Your task to perform on an android device: check storage Image 0: 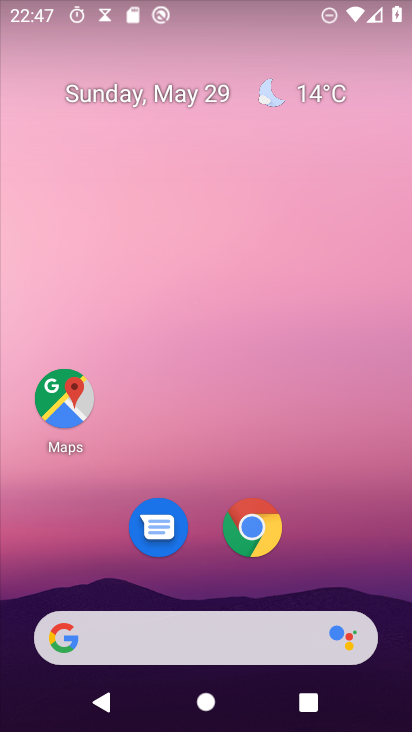
Step 0: drag from (191, 646) to (285, 67)
Your task to perform on an android device: check storage Image 1: 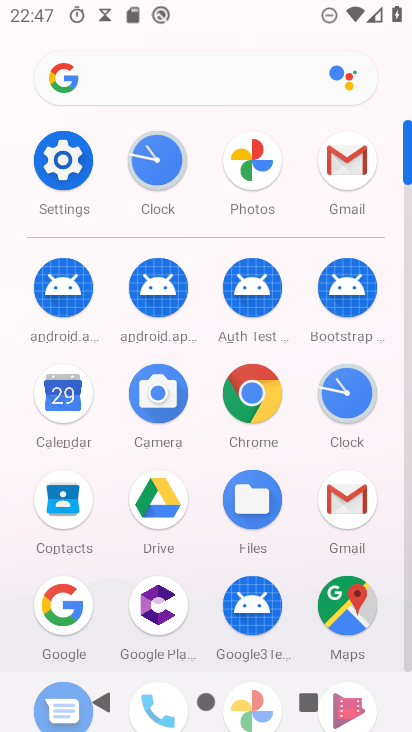
Step 1: click (59, 171)
Your task to perform on an android device: check storage Image 2: 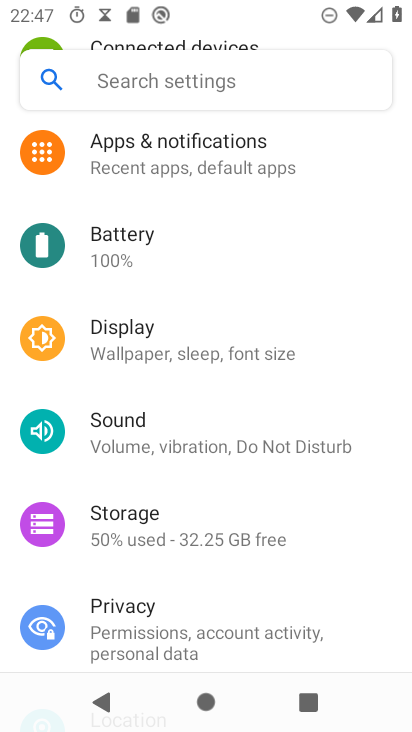
Step 2: click (185, 526)
Your task to perform on an android device: check storage Image 3: 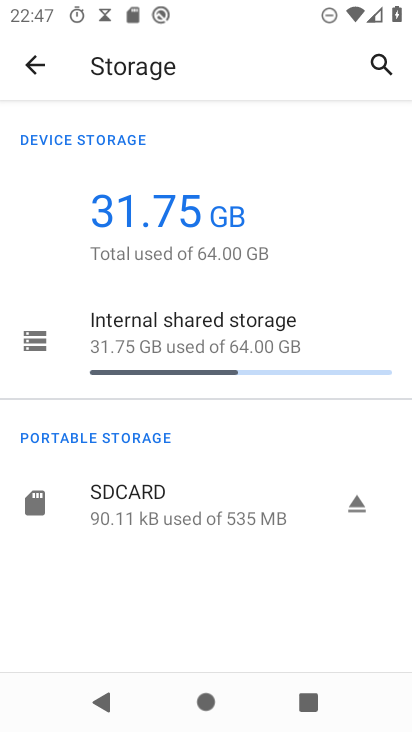
Step 3: task complete